Your task to perform on an android device: remove spam from my inbox in the gmail app Image 0: 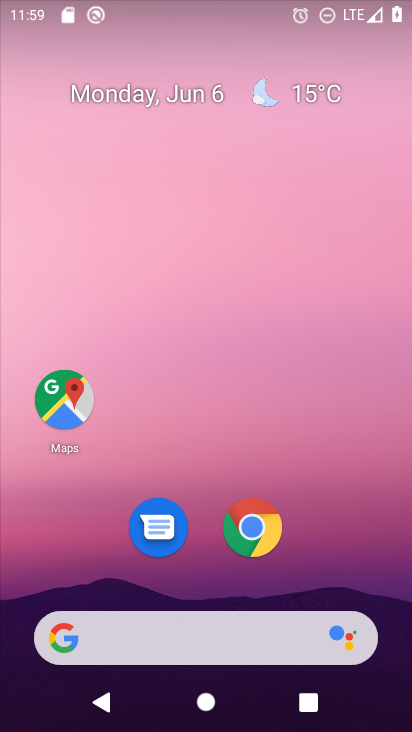
Step 0: drag from (373, 584) to (345, 76)
Your task to perform on an android device: remove spam from my inbox in the gmail app Image 1: 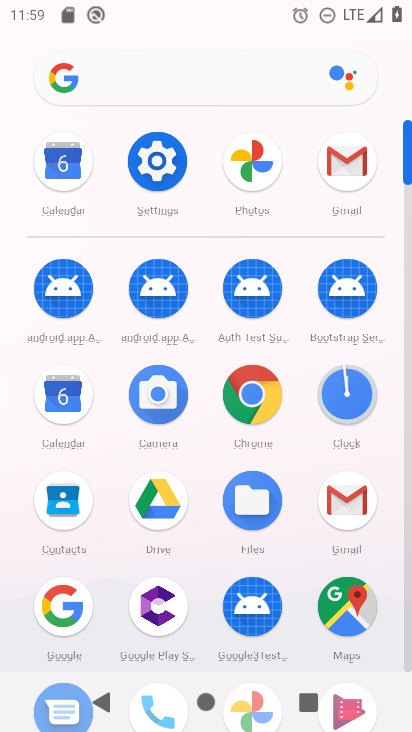
Step 1: drag from (301, 542) to (296, 289)
Your task to perform on an android device: remove spam from my inbox in the gmail app Image 2: 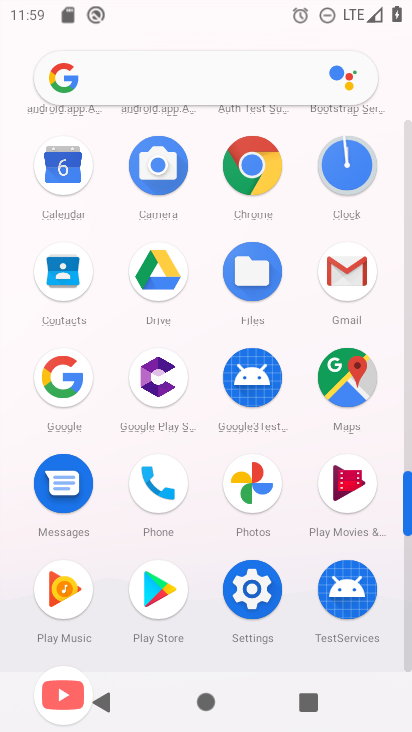
Step 2: click (367, 294)
Your task to perform on an android device: remove spam from my inbox in the gmail app Image 3: 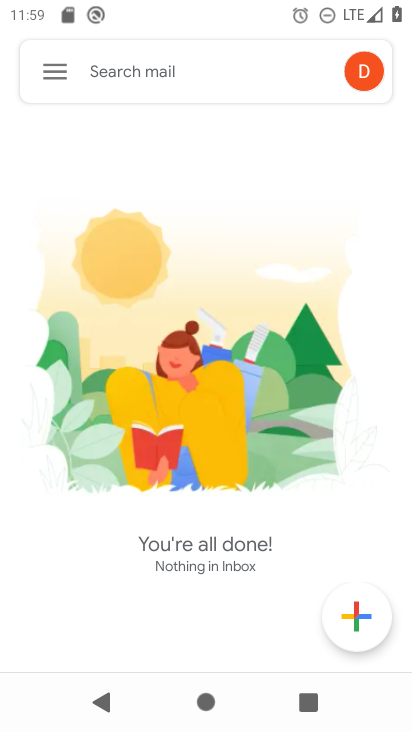
Step 3: click (58, 86)
Your task to perform on an android device: remove spam from my inbox in the gmail app Image 4: 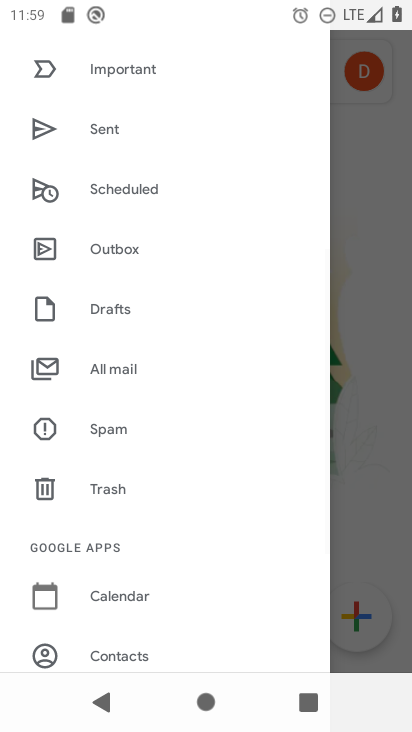
Step 4: drag from (232, 393) to (235, 238)
Your task to perform on an android device: remove spam from my inbox in the gmail app Image 5: 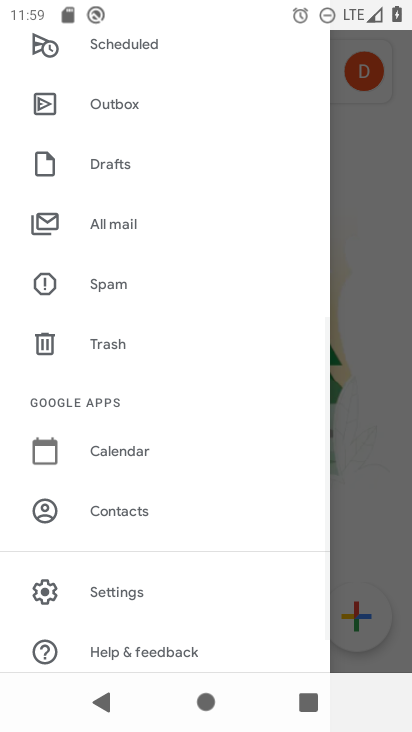
Step 5: drag from (248, 518) to (260, 266)
Your task to perform on an android device: remove spam from my inbox in the gmail app Image 6: 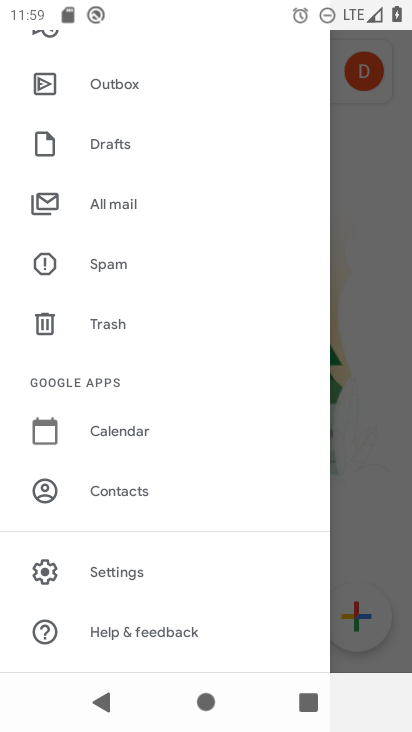
Step 6: drag from (268, 197) to (269, 293)
Your task to perform on an android device: remove spam from my inbox in the gmail app Image 7: 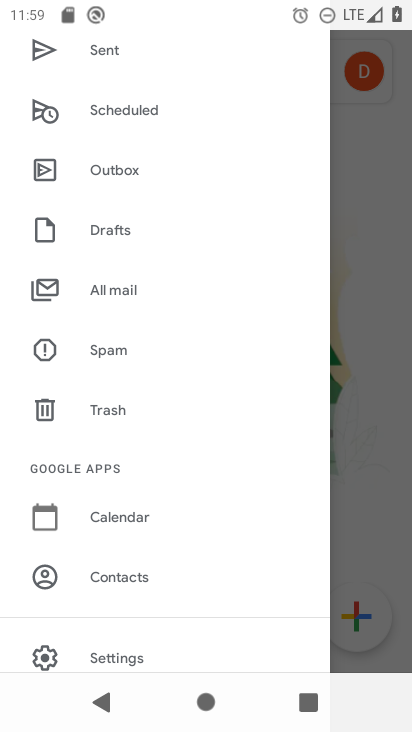
Step 7: drag from (258, 265) to (260, 379)
Your task to perform on an android device: remove spam from my inbox in the gmail app Image 8: 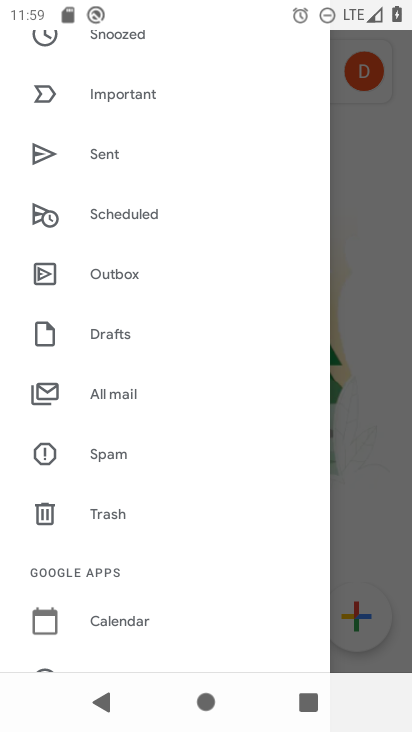
Step 8: drag from (236, 506) to (229, 220)
Your task to perform on an android device: remove spam from my inbox in the gmail app Image 9: 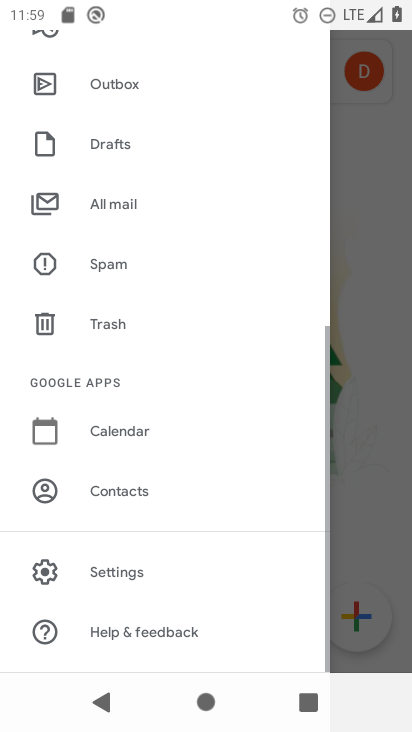
Step 9: click (134, 270)
Your task to perform on an android device: remove spam from my inbox in the gmail app Image 10: 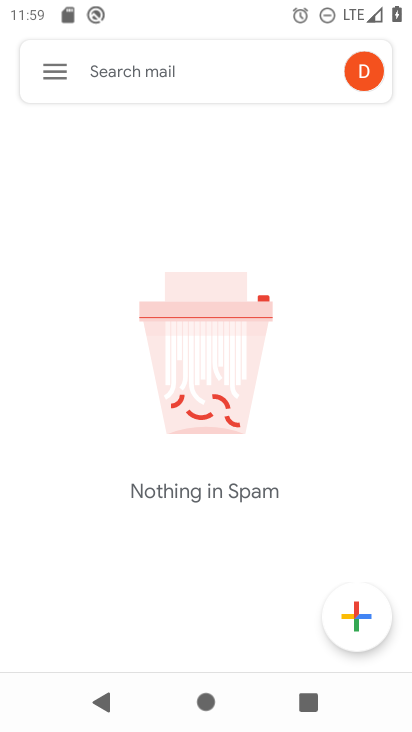
Step 10: task complete